Your task to perform on an android device: Open network settings Image 0: 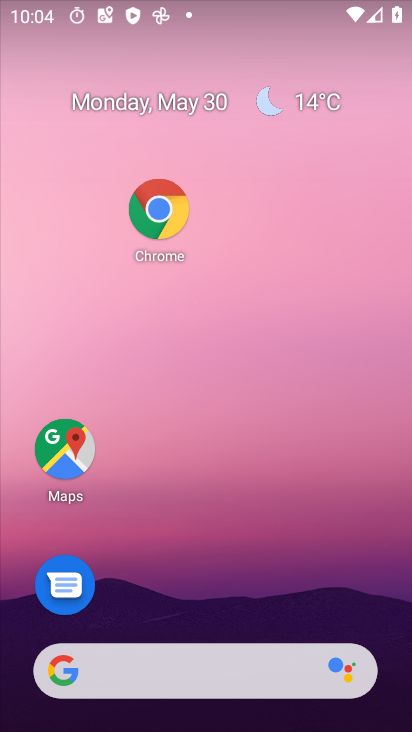
Step 0: drag from (225, 601) to (258, 135)
Your task to perform on an android device: Open network settings Image 1: 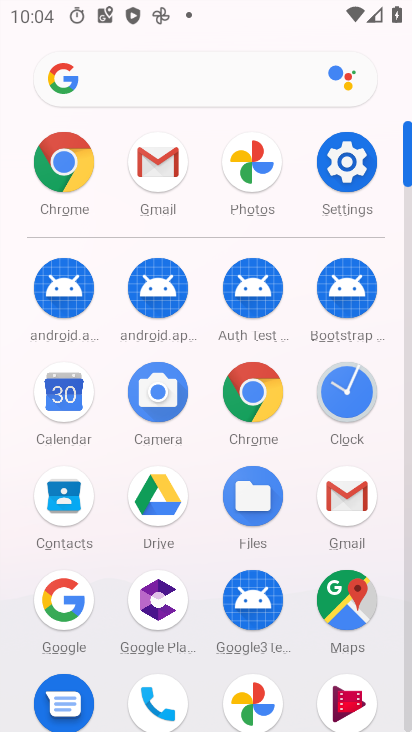
Step 1: click (344, 154)
Your task to perform on an android device: Open network settings Image 2: 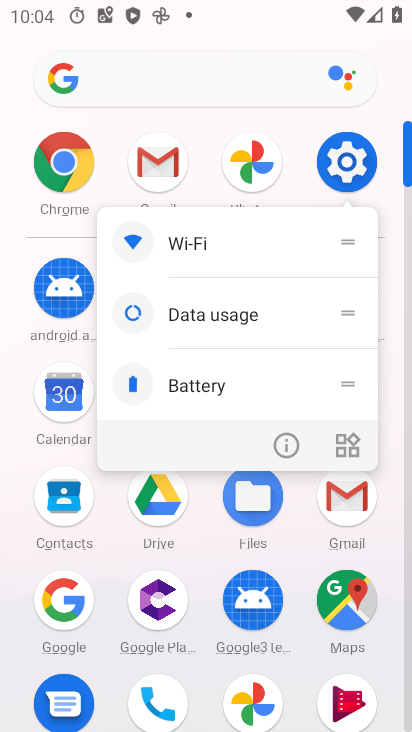
Step 2: click (275, 443)
Your task to perform on an android device: Open network settings Image 3: 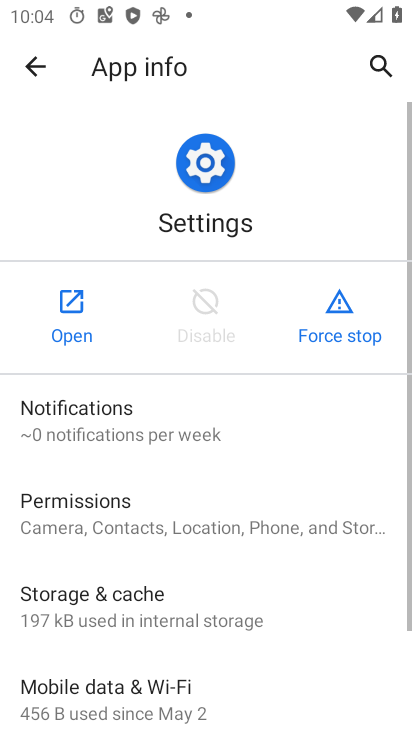
Step 3: click (87, 293)
Your task to perform on an android device: Open network settings Image 4: 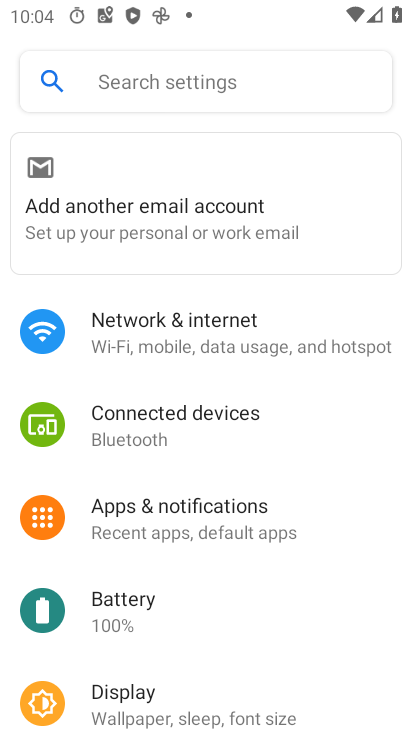
Step 4: click (155, 333)
Your task to perform on an android device: Open network settings Image 5: 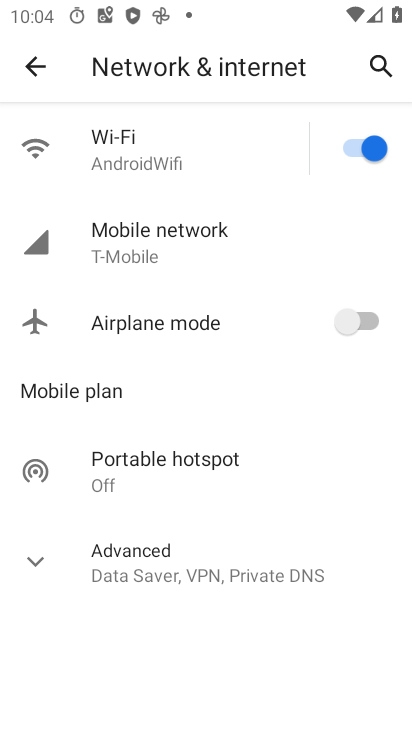
Step 5: task complete